Your task to perform on an android device: check google app version Image 0: 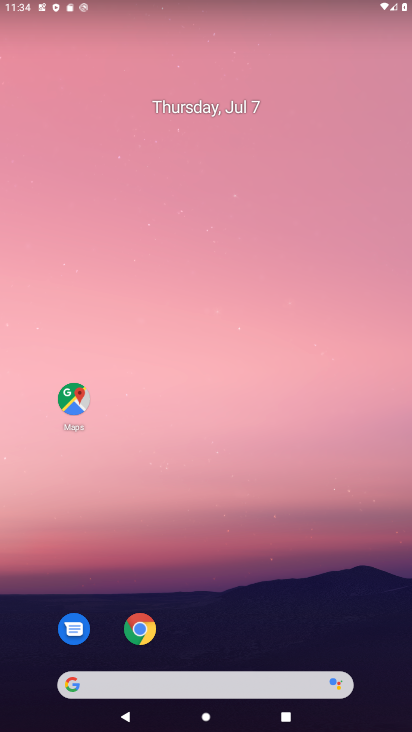
Step 0: click (140, 629)
Your task to perform on an android device: check google app version Image 1: 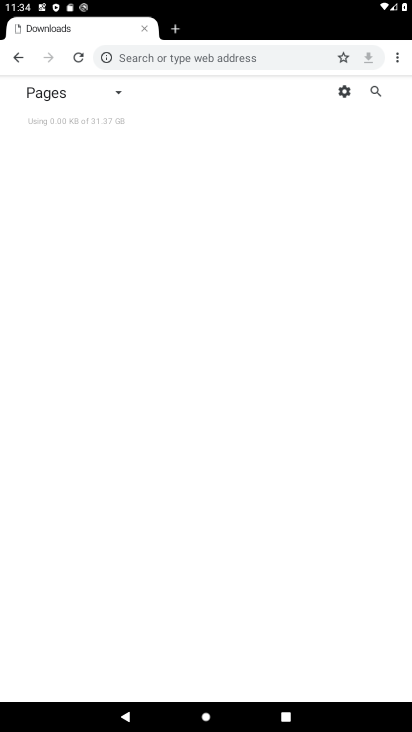
Step 1: click (398, 59)
Your task to perform on an android device: check google app version Image 2: 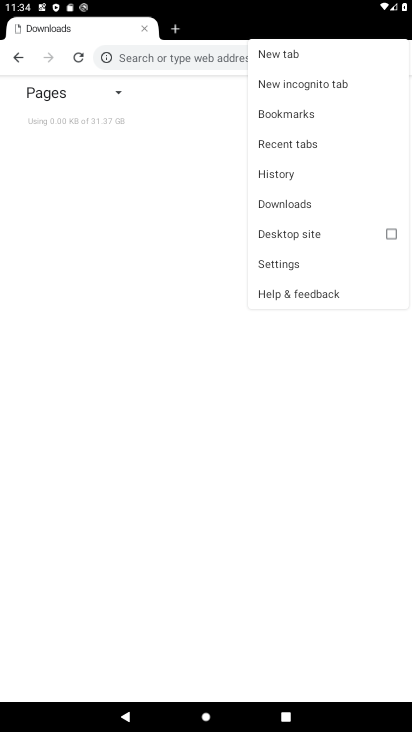
Step 2: click (286, 265)
Your task to perform on an android device: check google app version Image 3: 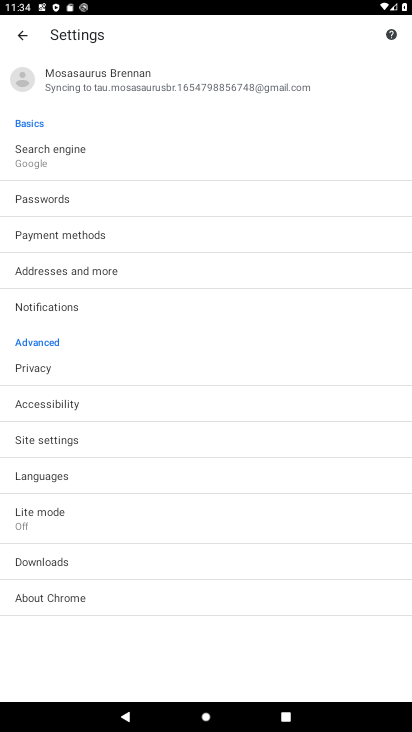
Step 3: click (48, 597)
Your task to perform on an android device: check google app version Image 4: 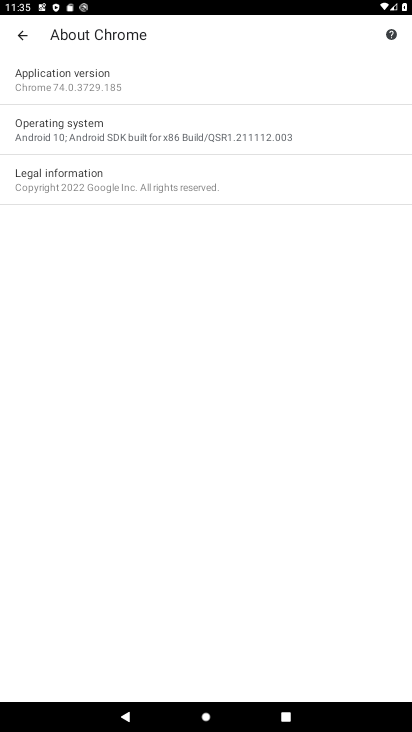
Step 4: click (89, 72)
Your task to perform on an android device: check google app version Image 5: 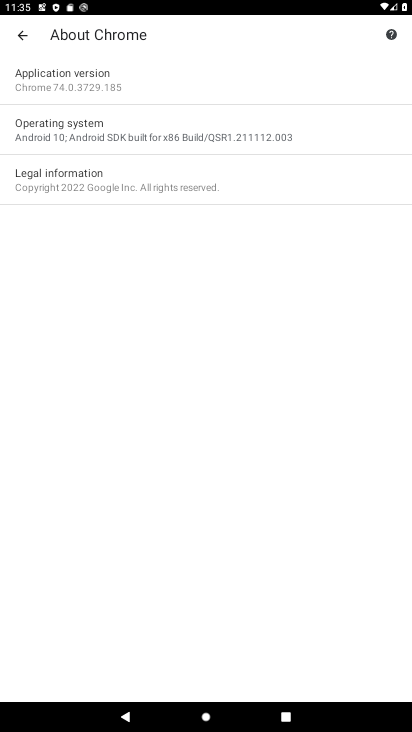
Step 5: task complete